Your task to perform on an android device: Open my contact list Image 0: 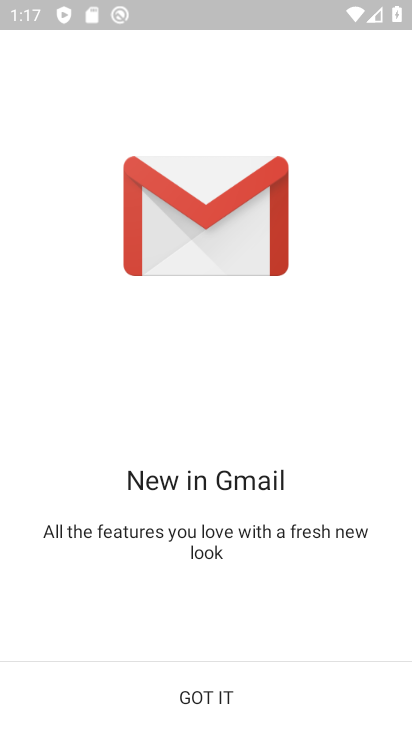
Step 0: press home button
Your task to perform on an android device: Open my contact list Image 1: 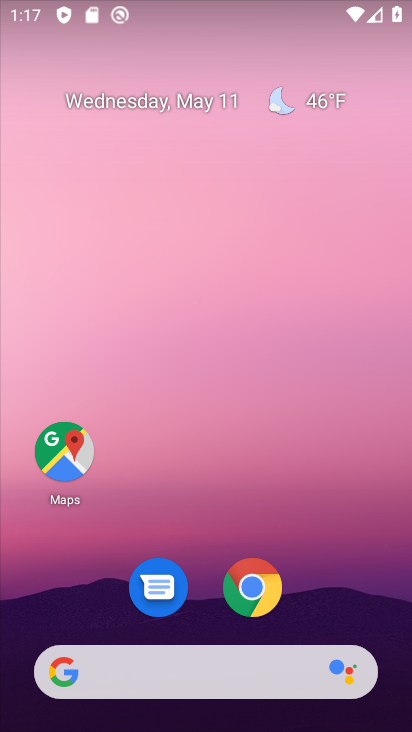
Step 1: drag from (327, 572) to (340, 2)
Your task to perform on an android device: Open my contact list Image 2: 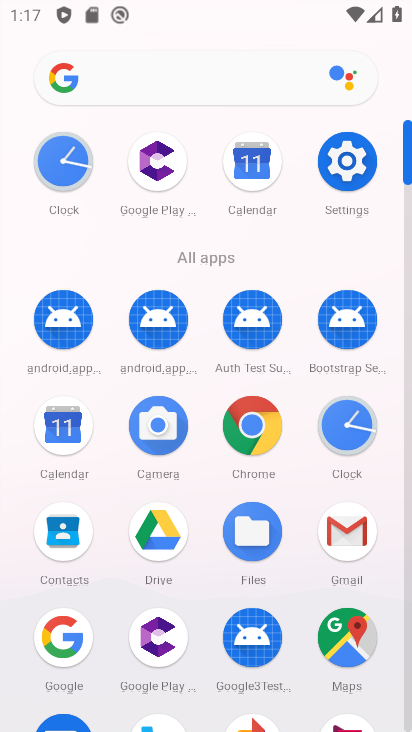
Step 2: click (405, 662)
Your task to perform on an android device: Open my contact list Image 3: 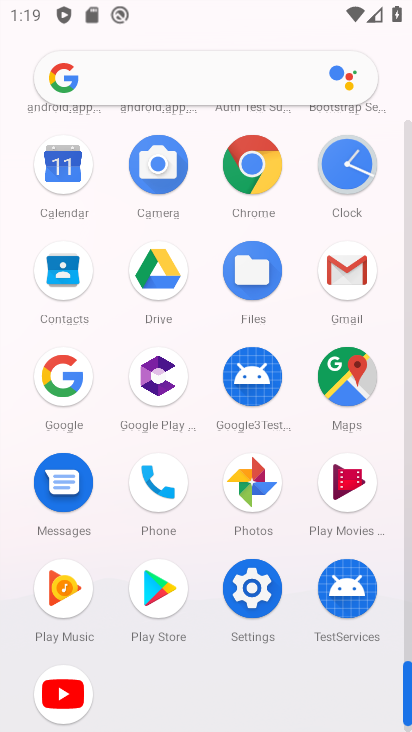
Step 3: click (57, 273)
Your task to perform on an android device: Open my contact list Image 4: 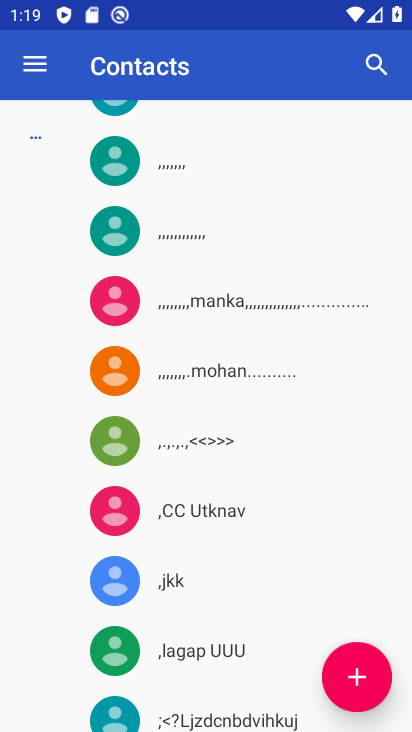
Step 4: drag from (245, 668) to (218, 408)
Your task to perform on an android device: Open my contact list Image 5: 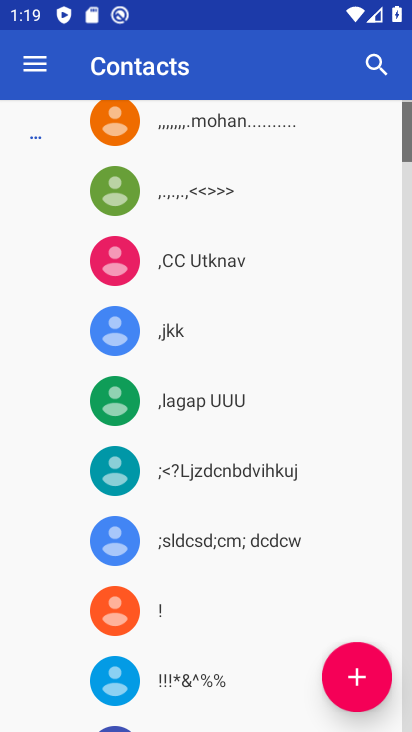
Step 5: drag from (218, 408) to (195, 236)
Your task to perform on an android device: Open my contact list Image 6: 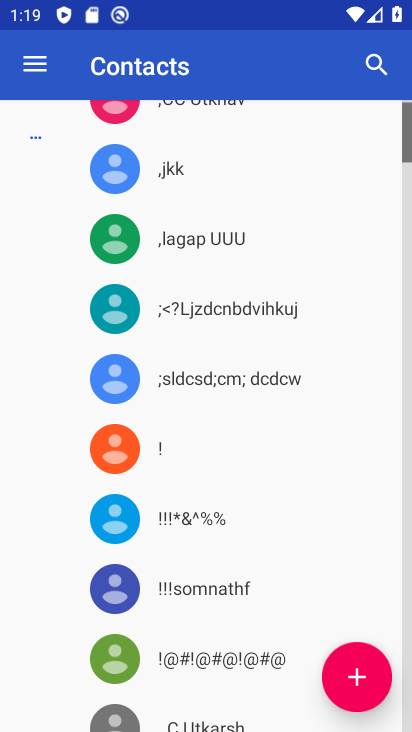
Step 6: click (195, 236)
Your task to perform on an android device: Open my contact list Image 7: 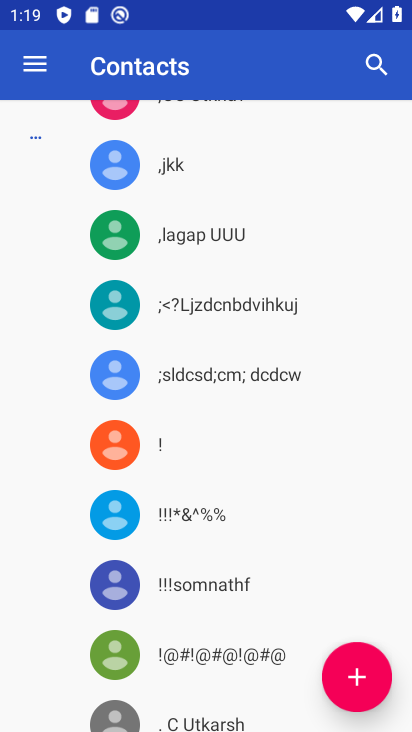
Step 7: task complete